Your task to perform on an android device: create a new album in the google photos Image 0: 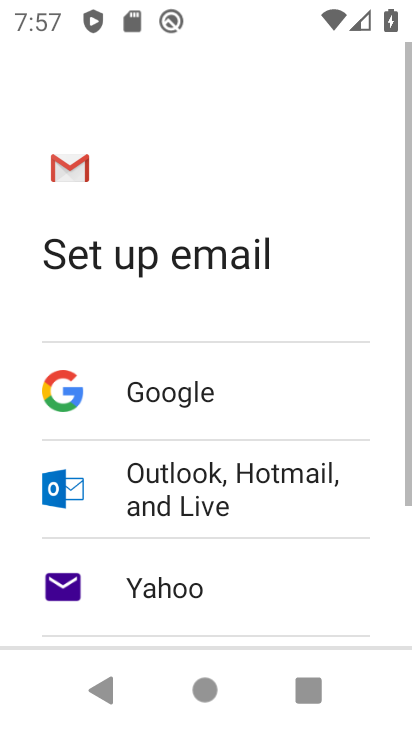
Step 0: press home button
Your task to perform on an android device: create a new album in the google photos Image 1: 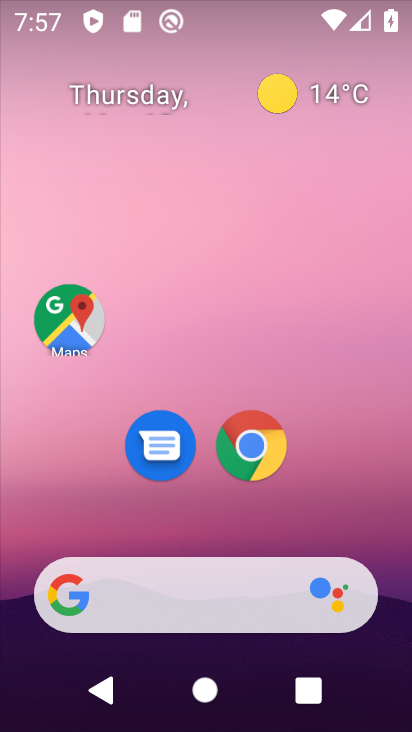
Step 1: drag from (241, 629) to (231, 204)
Your task to perform on an android device: create a new album in the google photos Image 2: 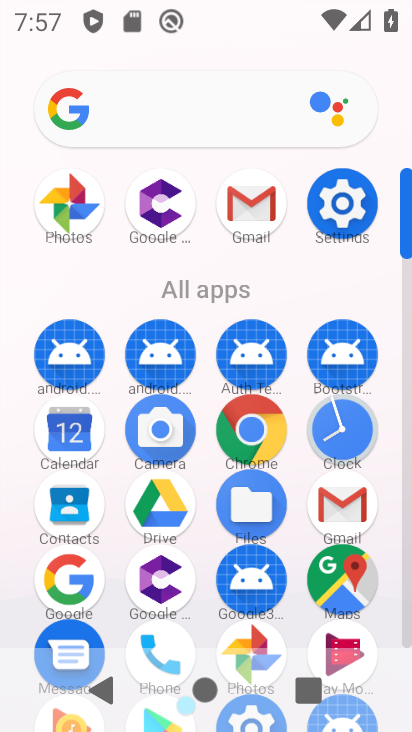
Step 2: click (70, 204)
Your task to perform on an android device: create a new album in the google photos Image 3: 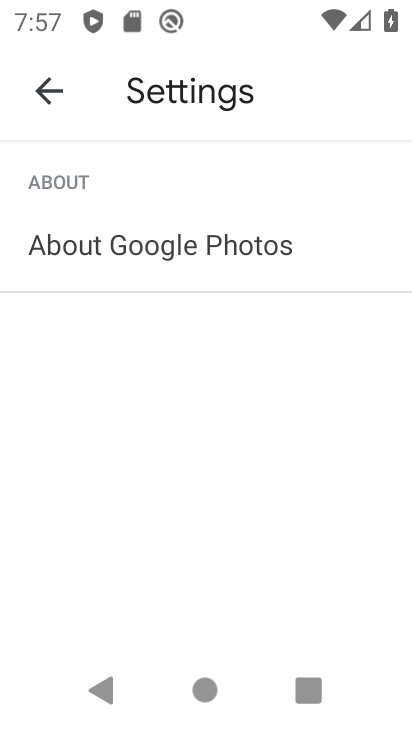
Step 3: click (47, 87)
Your task to perform on an android device: create a new album in the google photos Image 4: 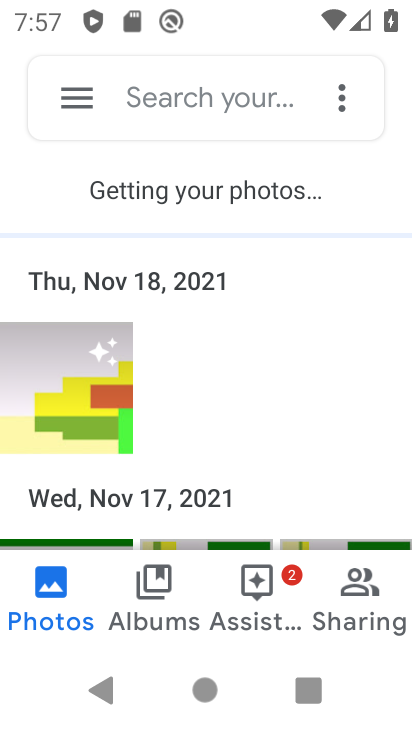
Step 4: click (340, 106)
Your task to perform on an android device: create a new album in the google photos Image 5: 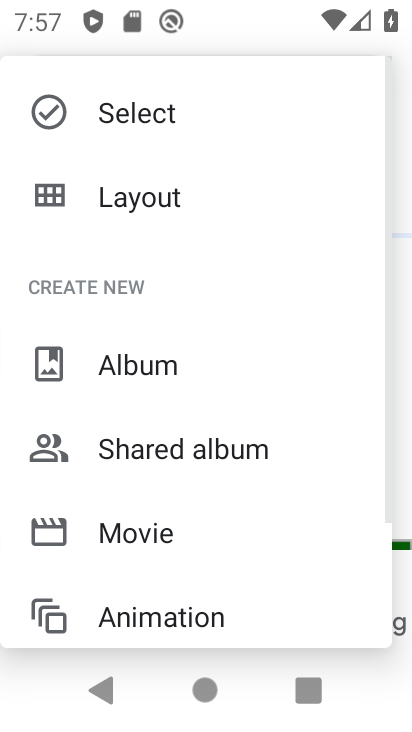
Step 5: click (149, 363)
Your task to perform on an android device: create a new album in the google photos Image 6: 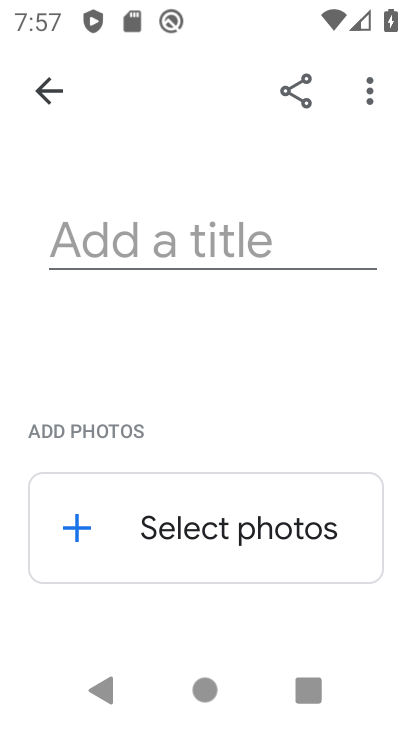
Step 6: click (204, 245)
Your task to perform on an android device: create a new album in the google photos Image 7: 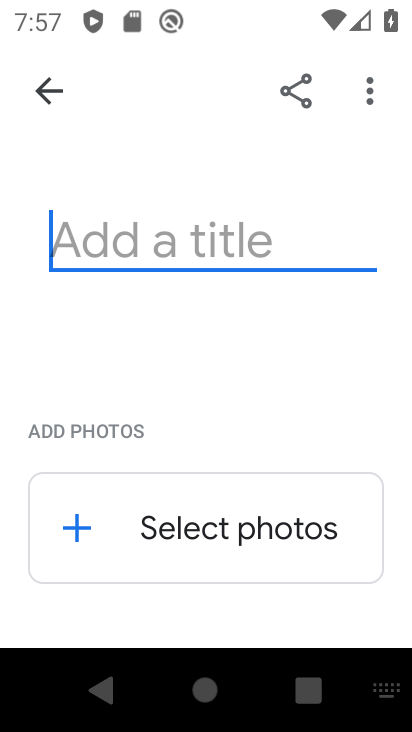
Step 7: type "zombi land "
Your task to perform on an android device: create a new album in the google photos Image 8: 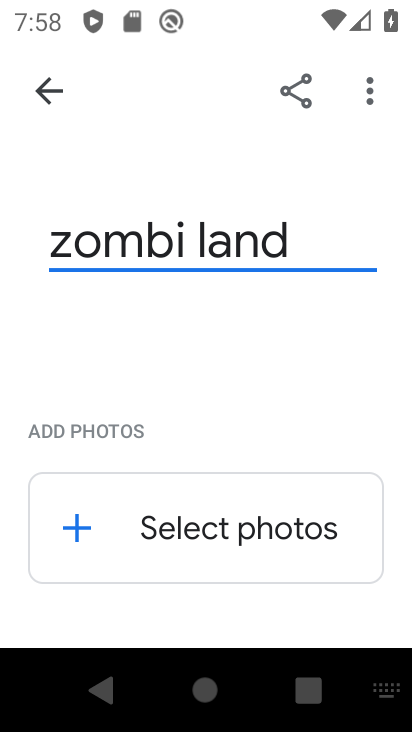
Step 8: click (219, 387)
Your task to perform on an android device: create a new album in the google photos Image 9: 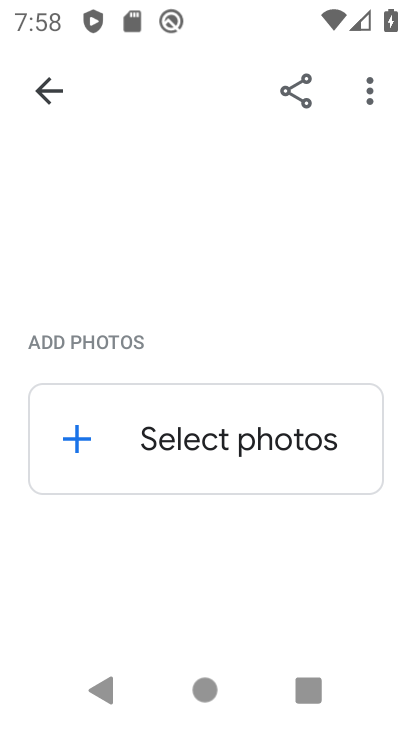
Step 9: click (108, 442)
Your task to perform on an android device: create a new album in the google photos Image 10: 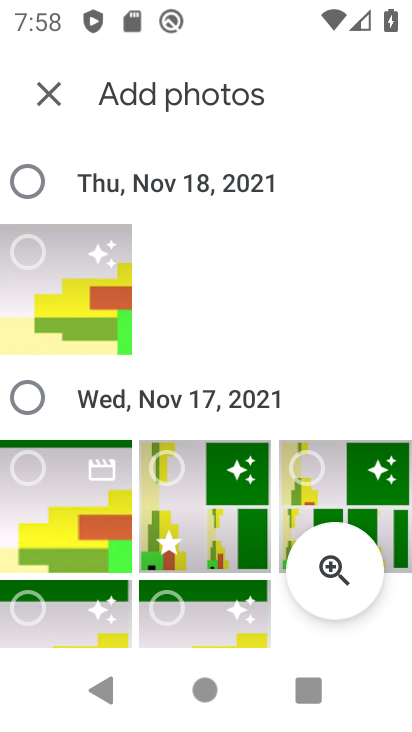
Step 10: click (160, 460)
Your task to perform on an android device: create a new album in the google photos Image 11: 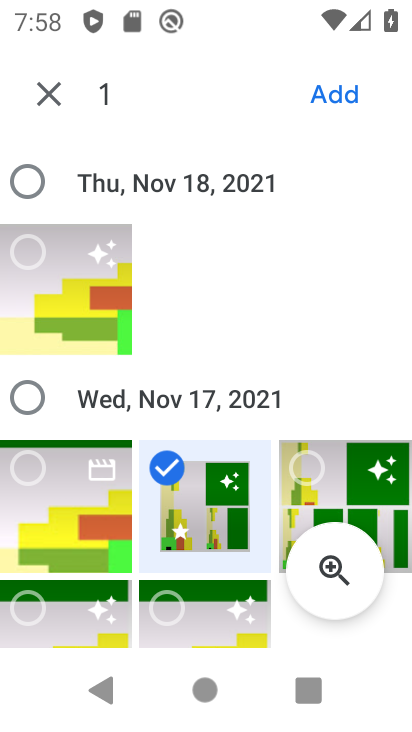
Step 11: click (30, 468)
Your task to perform on an android device: create a new album in the google photos Image 12: 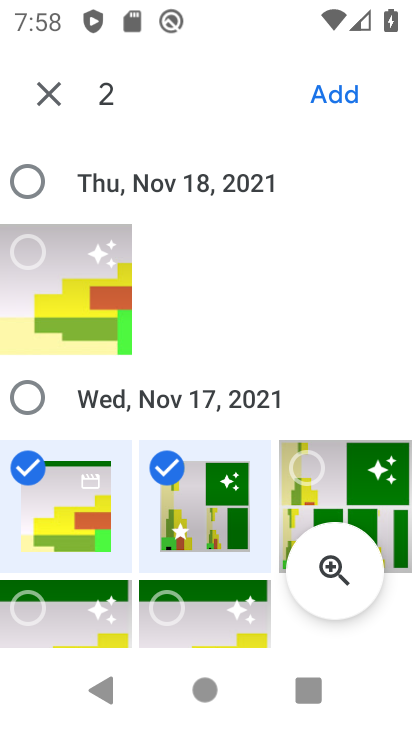
Step 12: click (341, 91)
Your task to perform on an android device: create a new album in the google photos Image 13: 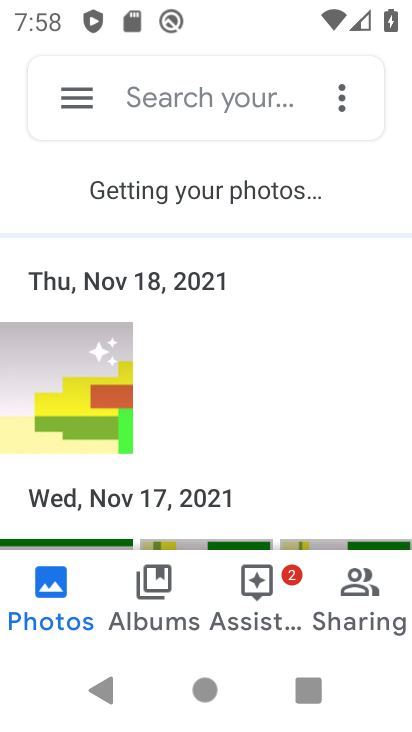
Step 13: task complete